Your task to perform on an android device: Open Chrome and go to settings Image 0: 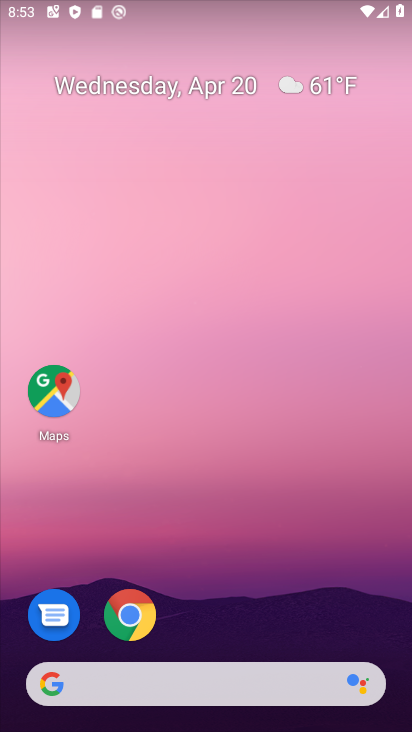
Step 0: drag from (205, 649) to (174, 46)
Your task to perform on an android device: Open Chrome and go to settings Image 1: 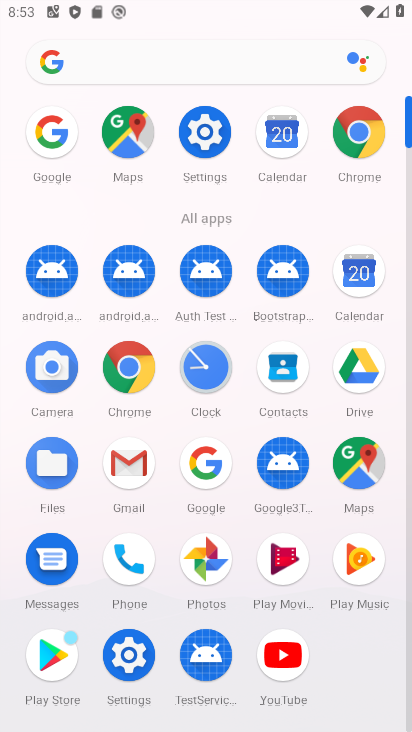
Step 1: click (357, 139)
Your task to perform on an android device: Open Chrome and go to settings Image 2: 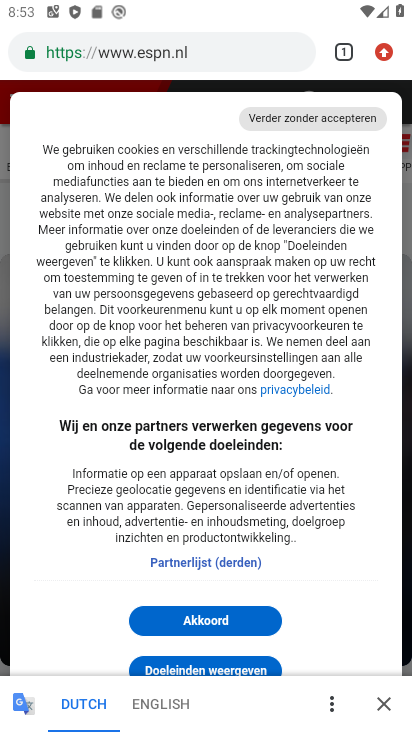
Step 2: click (386, 53)
Your task to perform on an android device: Open Chrome and go to settings Image 3: 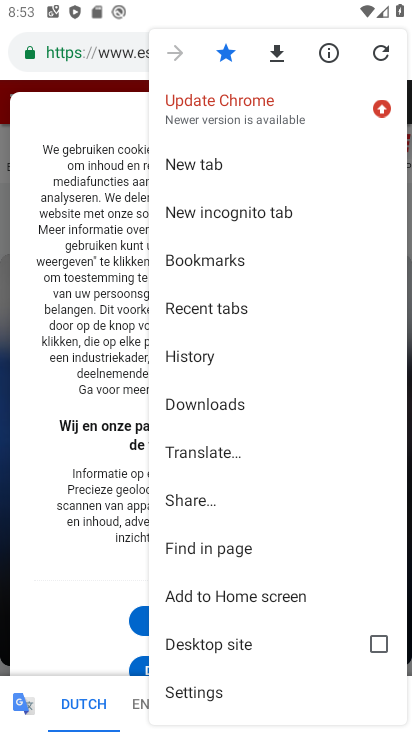
Step 3: click (228, 686)
Your task to perform on an android device: Open Chrome and go to settings Image 4: 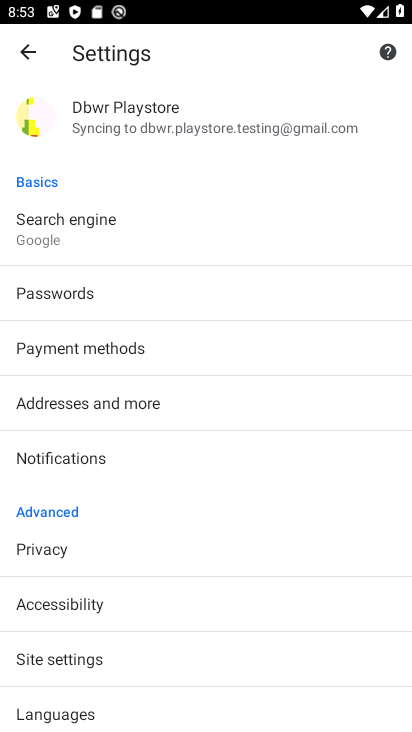
Step 4: task complete